Your task to perform on an android device: open app "Mercado Libre" (install if not already installed), go to login, and select forgot password Image 0: 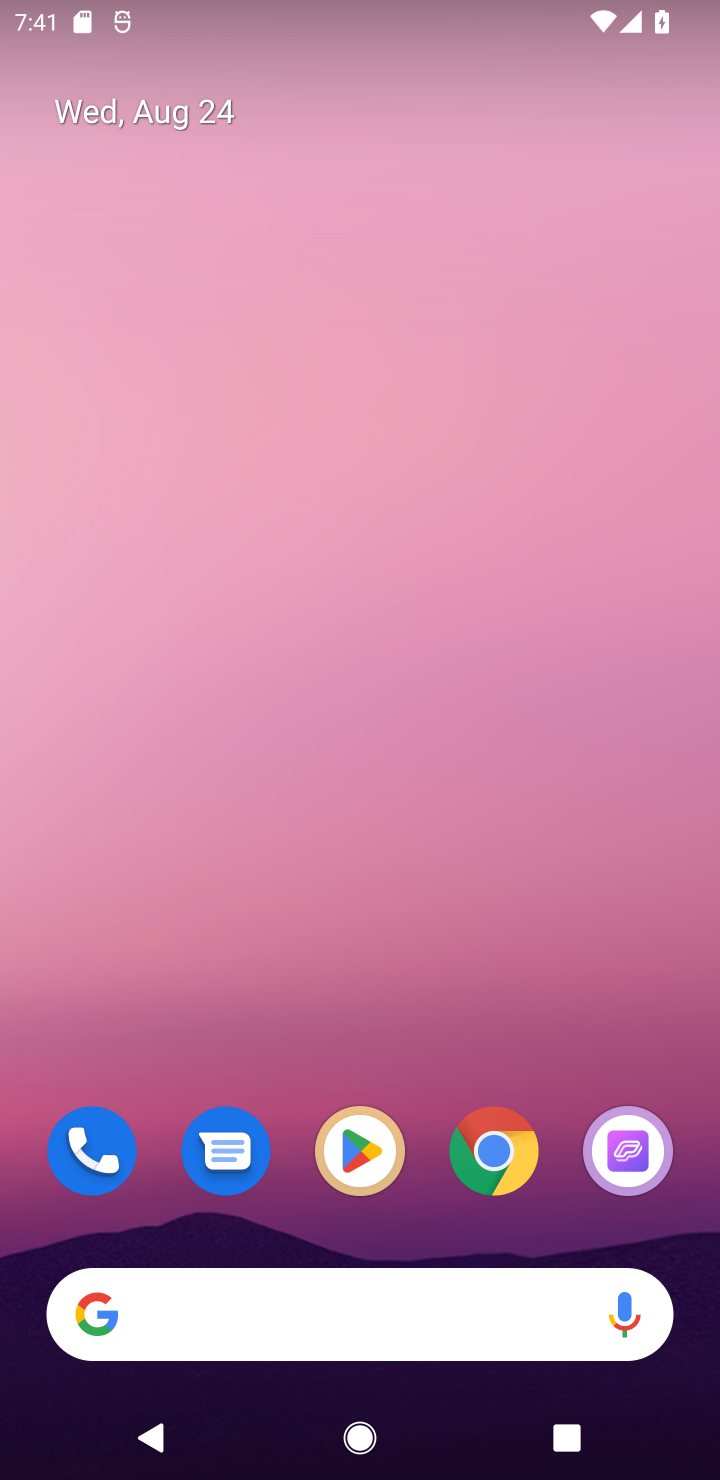
Step 0: click (357, 1145)
Your task to perform on an android device: open app "Mercado Libre" (install if not already installed), go to login, and select forgot password Image 1: 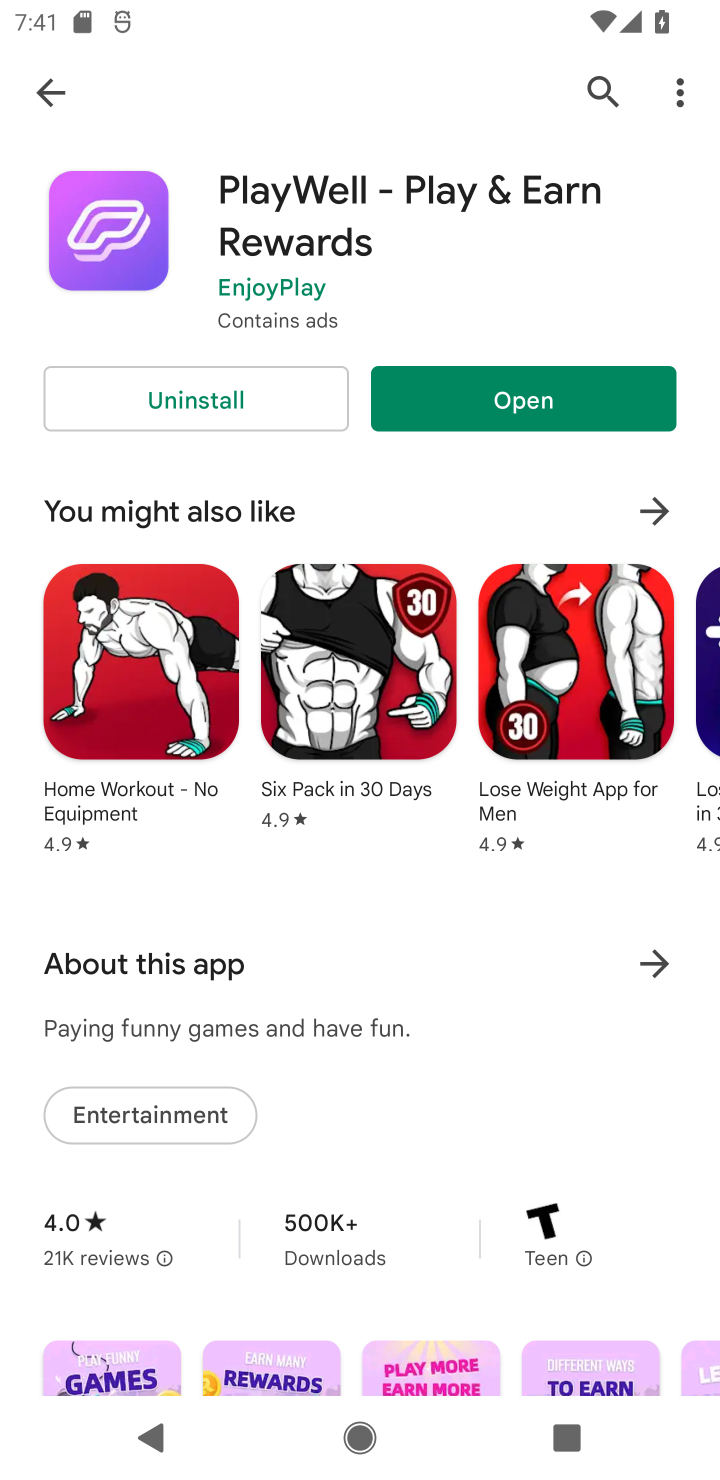
Step 1: click (596, 88)
Your task to perform on an android device: open app "Mercado Libre" (install if not already installed), go to login, and select forgot password Image 2: 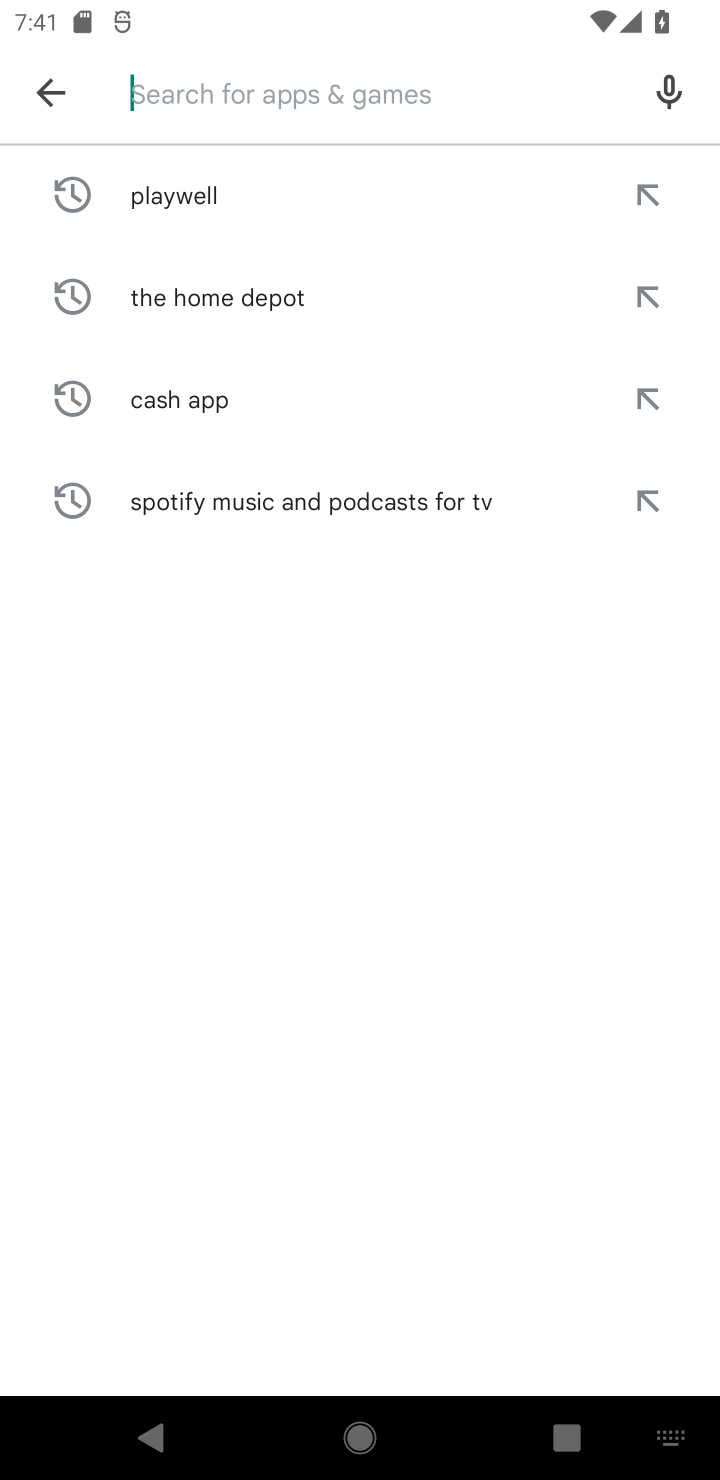
Step 2: type "Mercado Libre"
Your task to perform on an android device: open app "Mercado Libre" (install if not already installed), go to login, and select forgot password Image 3: 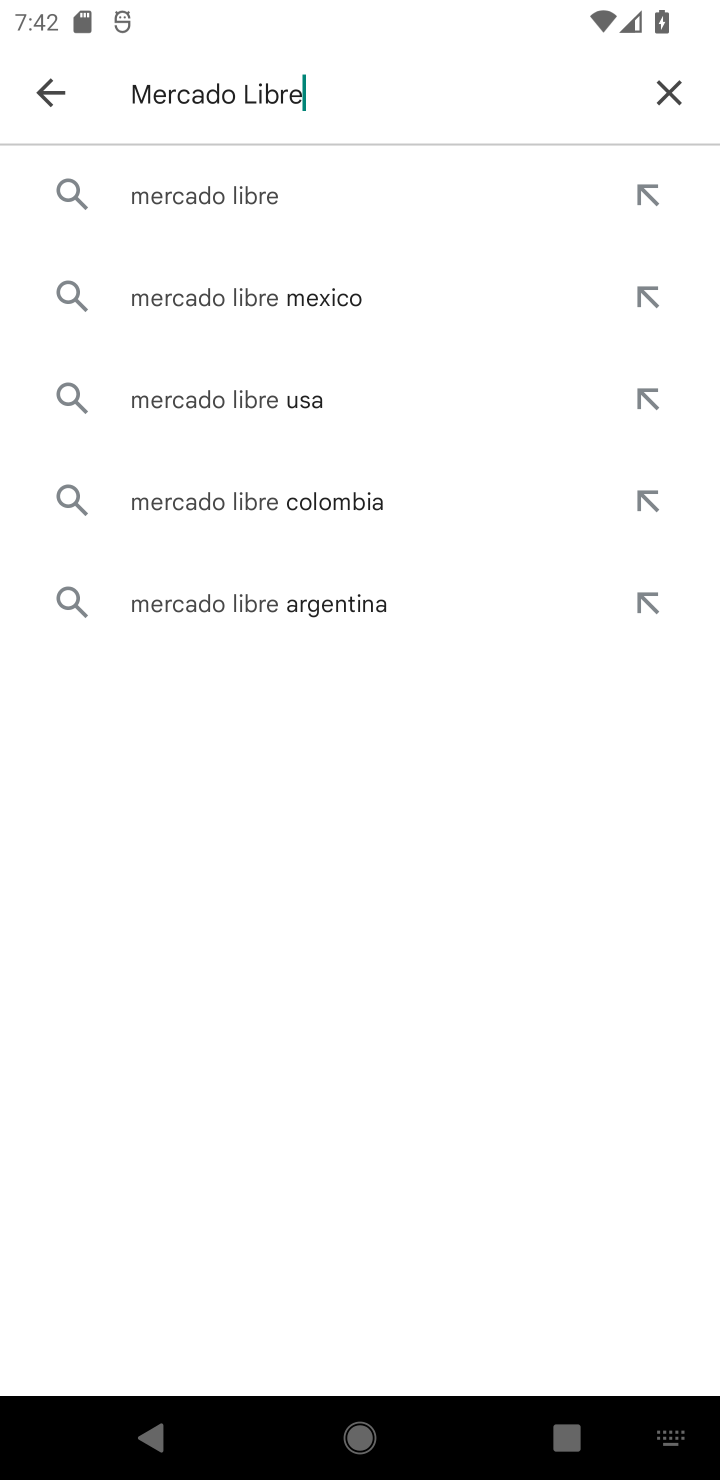
Step 3: click (183, 186)
Your task to perform on an android device: open app "Mercado Libre" (install if not already installed), go to login, and select forgot password Image 4: 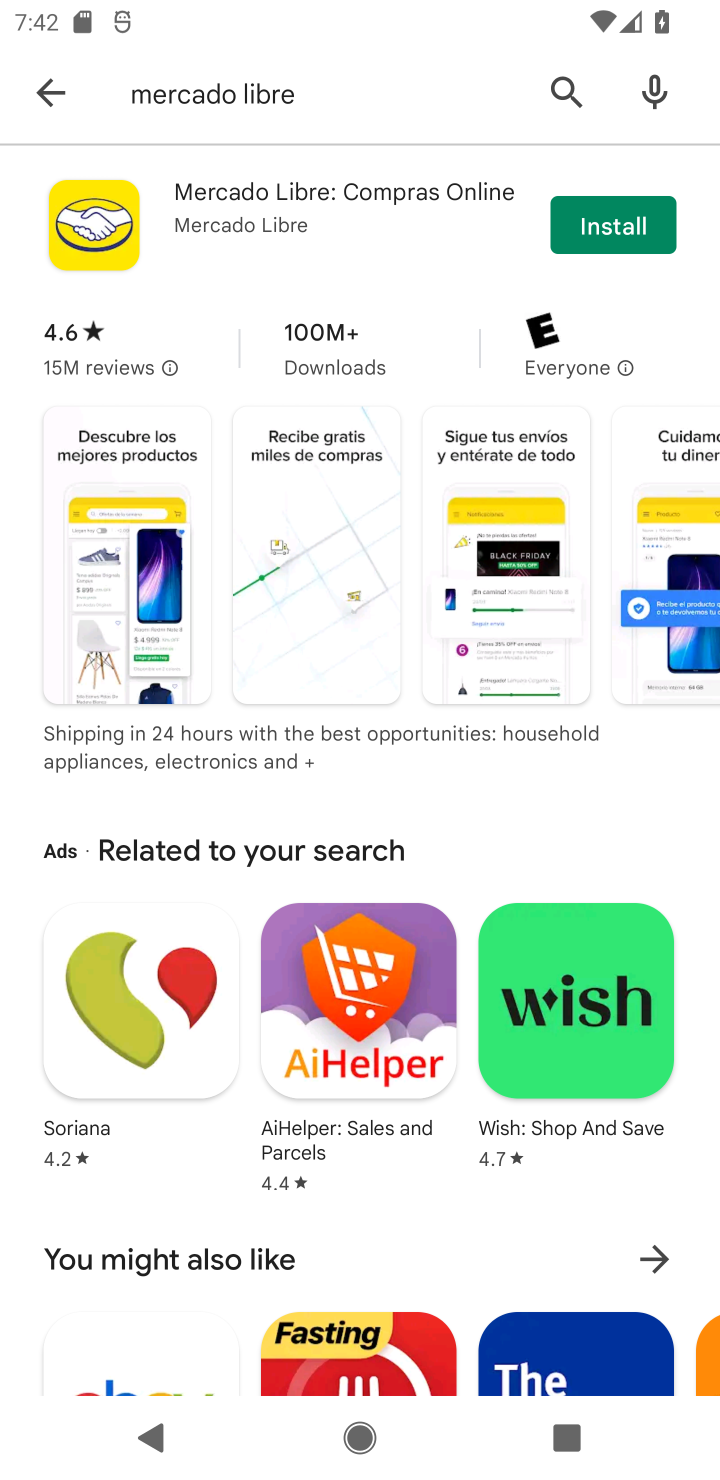
Step 4: click (219, 190)
Your task to perform on an android device: open app "Mercado Libre" (install if not already installed), go to login, and select forgot password Image 5: 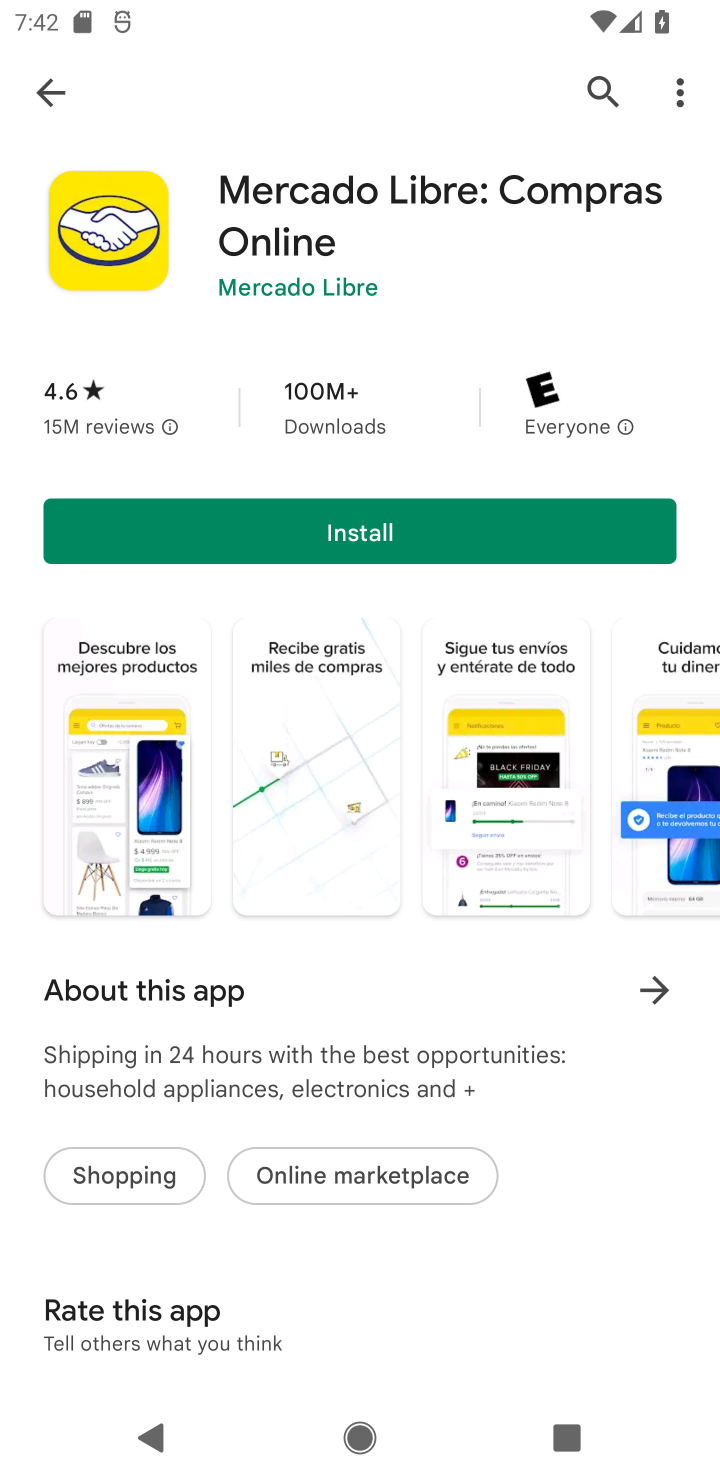
Step 5: click (357, 532)
Your task to perform on an android device: open app "Mercado Libre" (install if not already installed), go to login, and select forgot password Image 6: 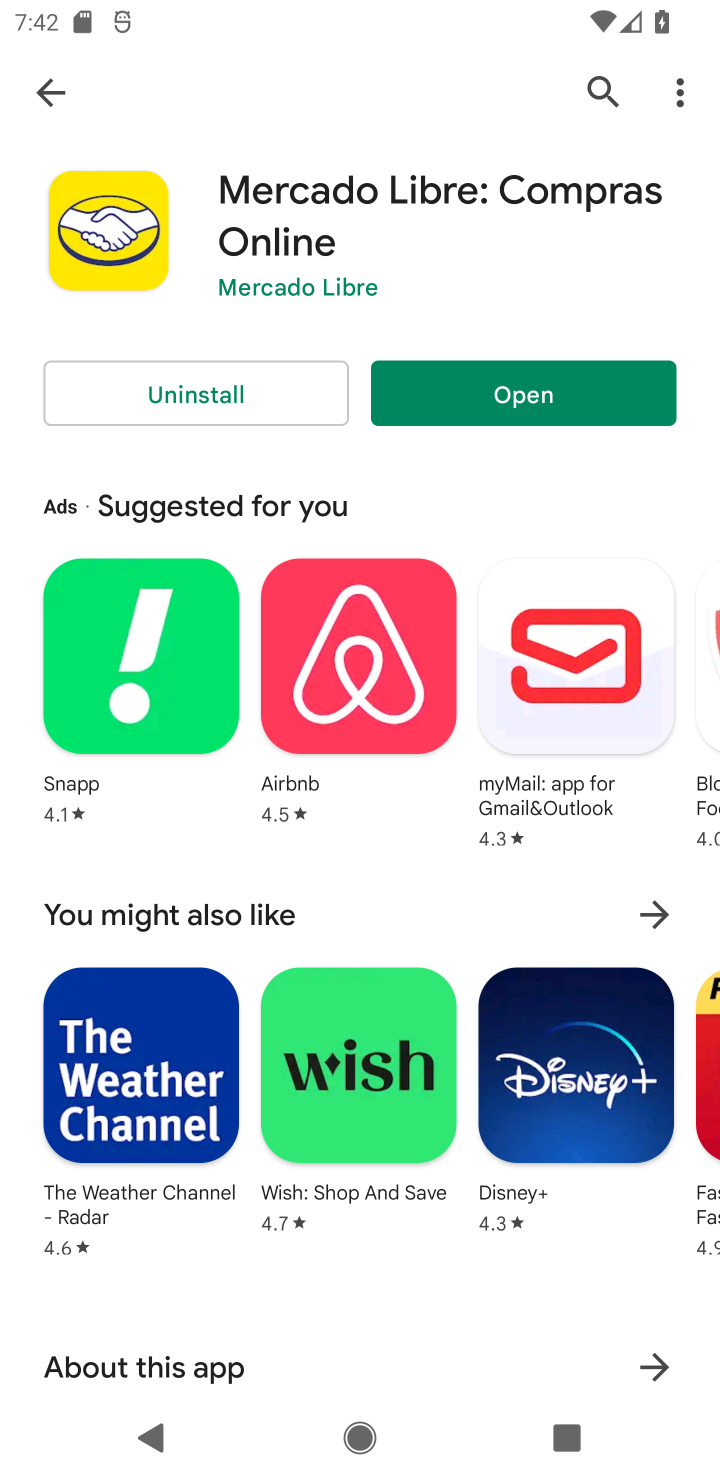
Step 6: click (521, 399)
Your task to perform on an android device: open app "Mercado Libre" (install if not already installed), go to login, and select forgot password Image 7: 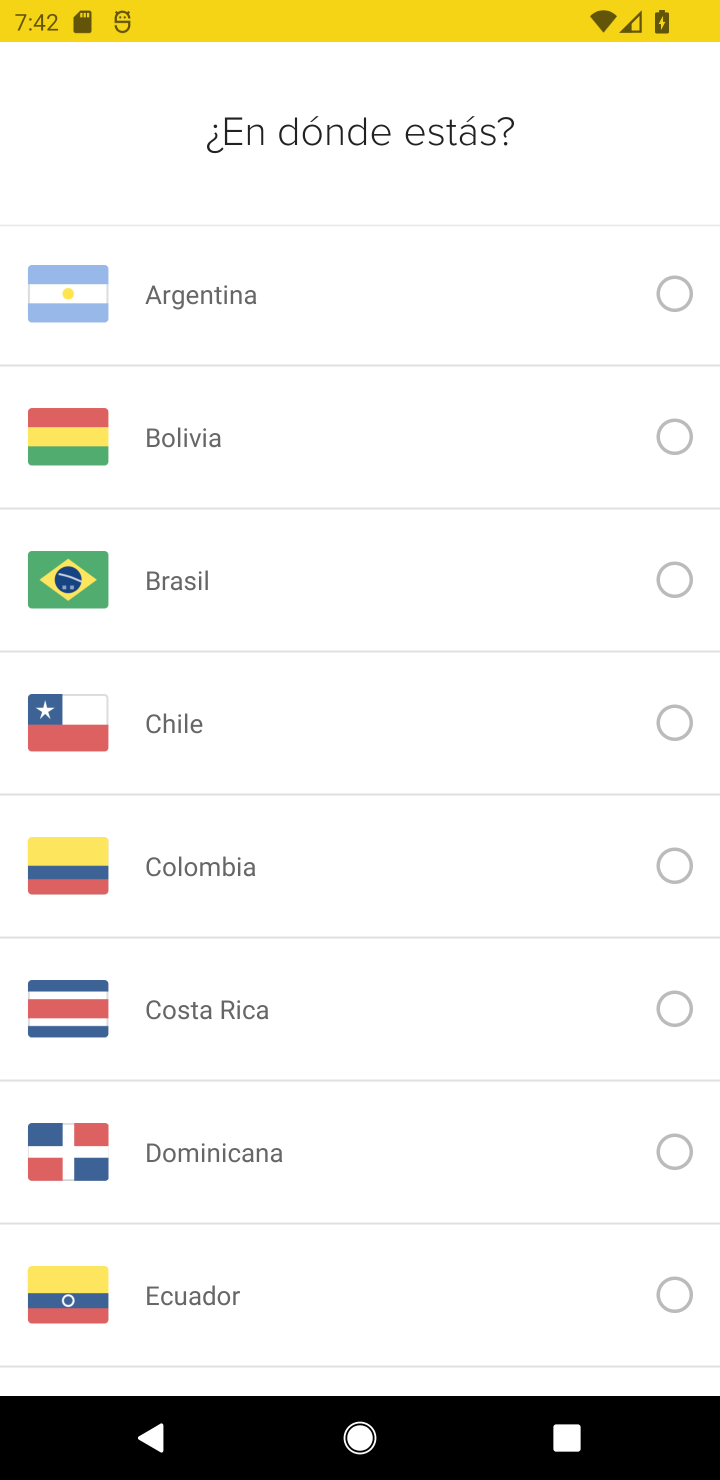
Step 7: drag from (502, 1146) to (487, 585)
Your task to perform on an android device: open app "Mercado Libre" (install if not already installed), go to login, and select forgot password Image 8: 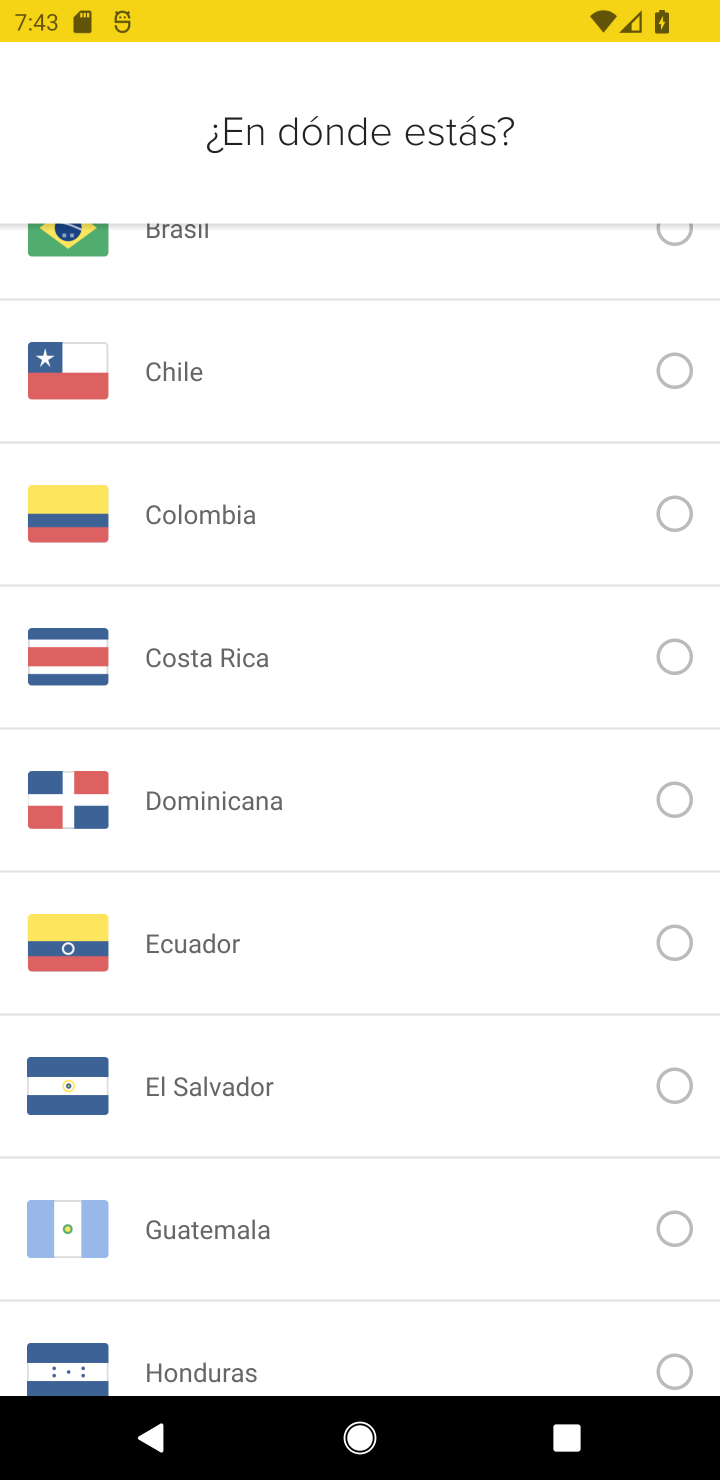
Step 8: drag from (517, 1075) to (510, 280)
Your task to perform on an android device: open app "Mercado Libre" (install if not already installed), go to login, and select forgot password Image 9: 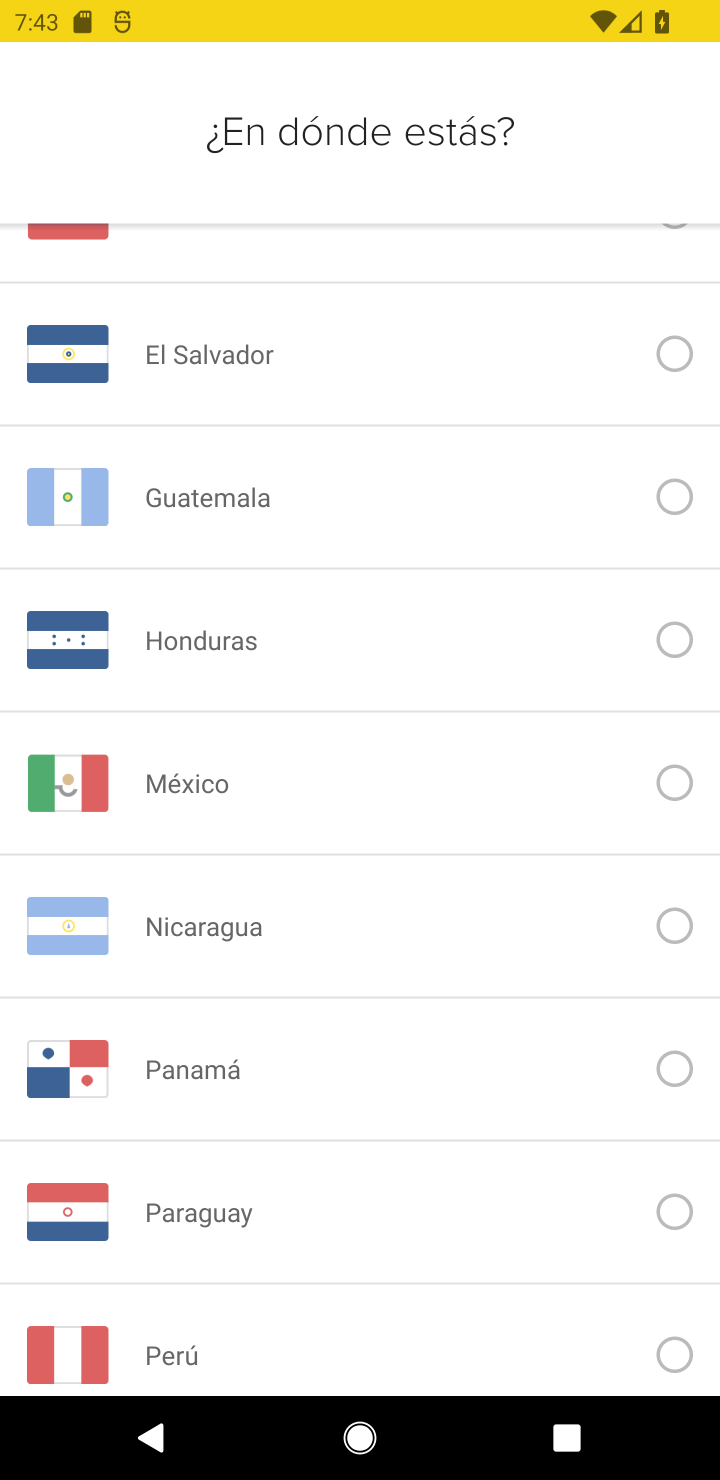
Step 9: drag from (536, 1198) to (457, 266)
Your task to perform on an android device: open app "Mercado Libre" (install if not already installed), go to login, and select forgot password Image 10: 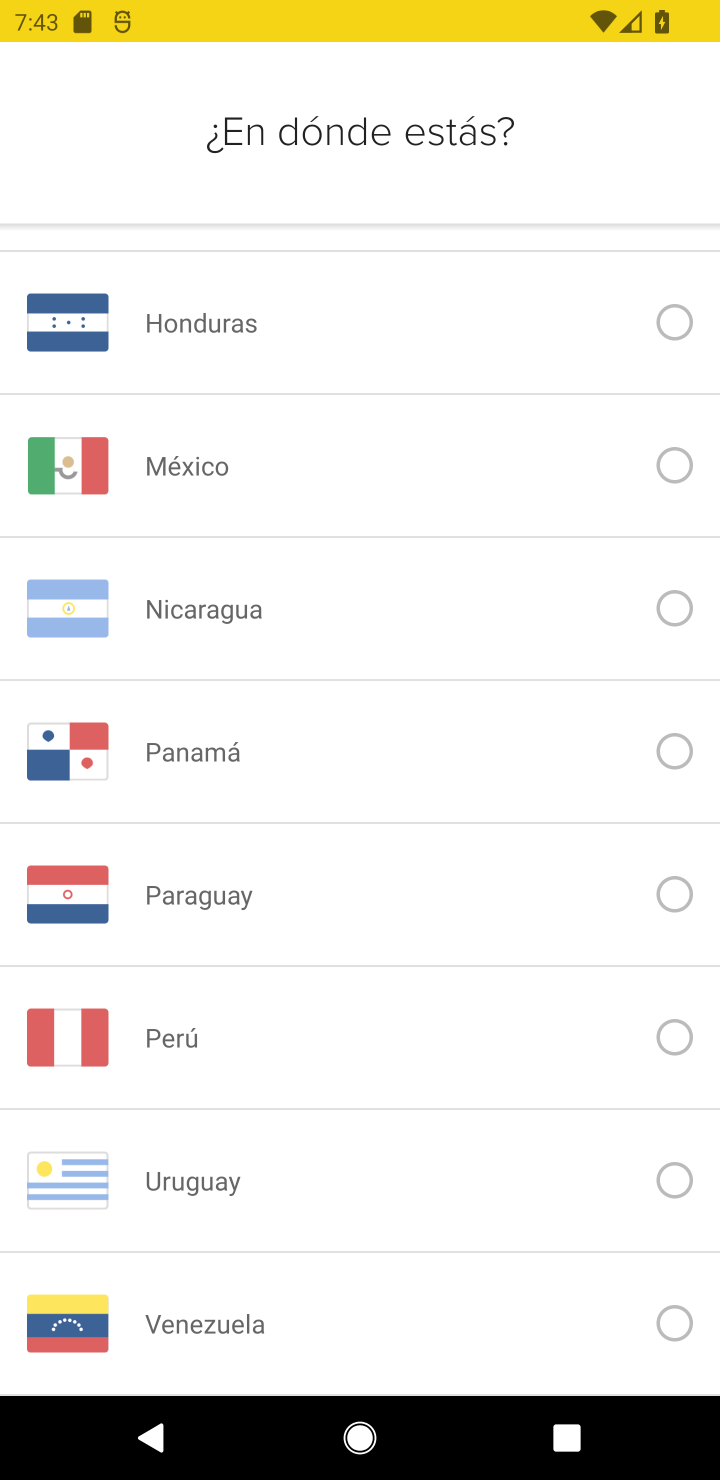
Step 10: click (664, 464)
Your task to perform on an android device: open app "Mercado Libre" (install if not already installed), go to login, and select forgot password Image 11: 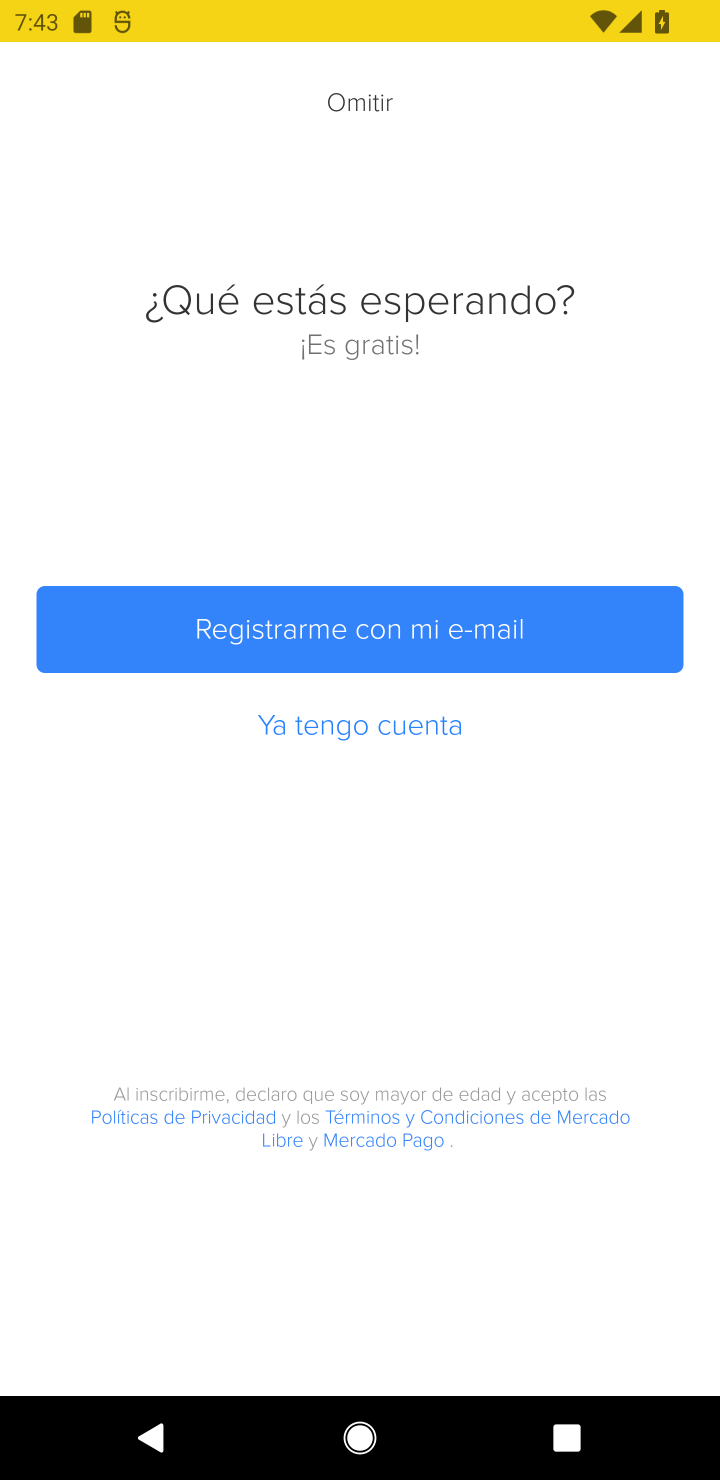
Step 11: task complete